Your task to perform on an android device: Add macbook pro 15 inch to the cart on target.com, then select checkout. Image 0: 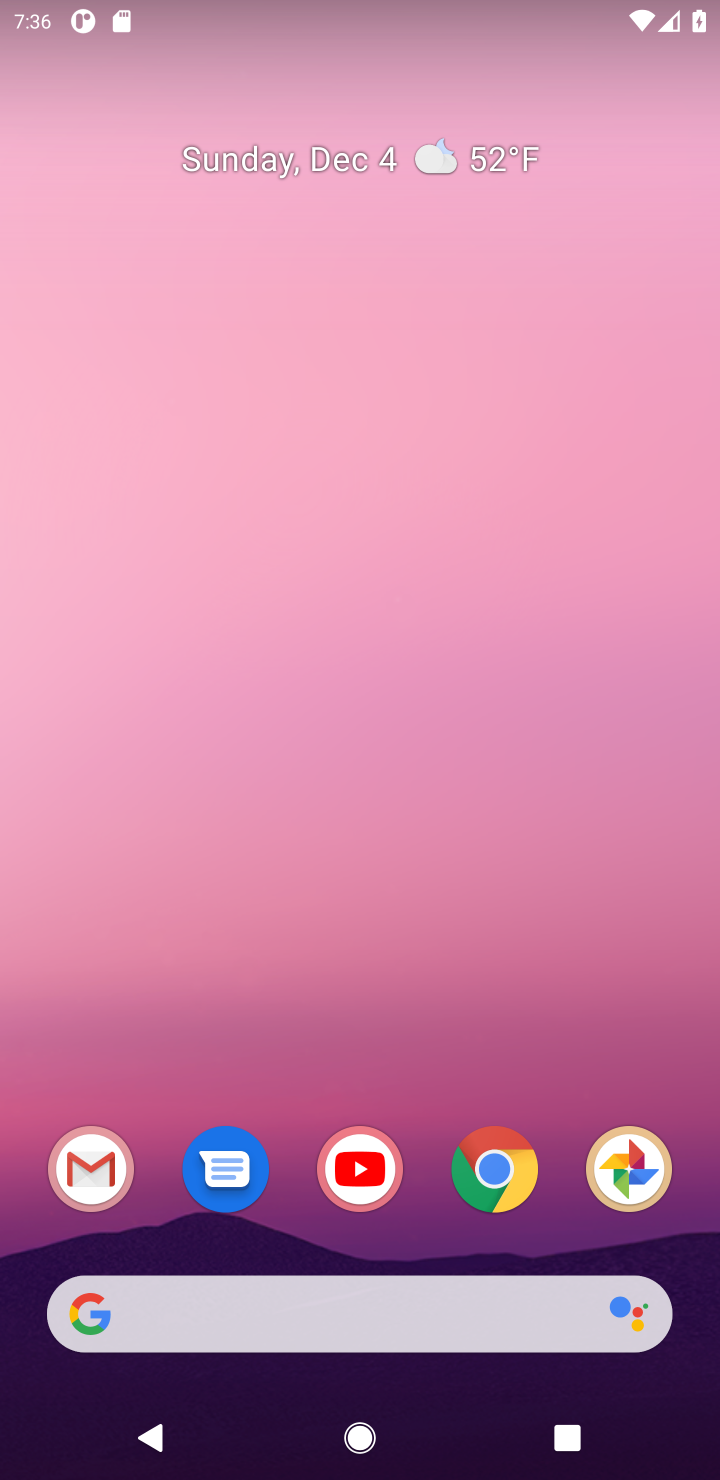
Step 0: click (506, 1171)
Your task to perform on an android device: Add macbook pro 15 inch to the cart on target.com, then select checkout. Image 1: 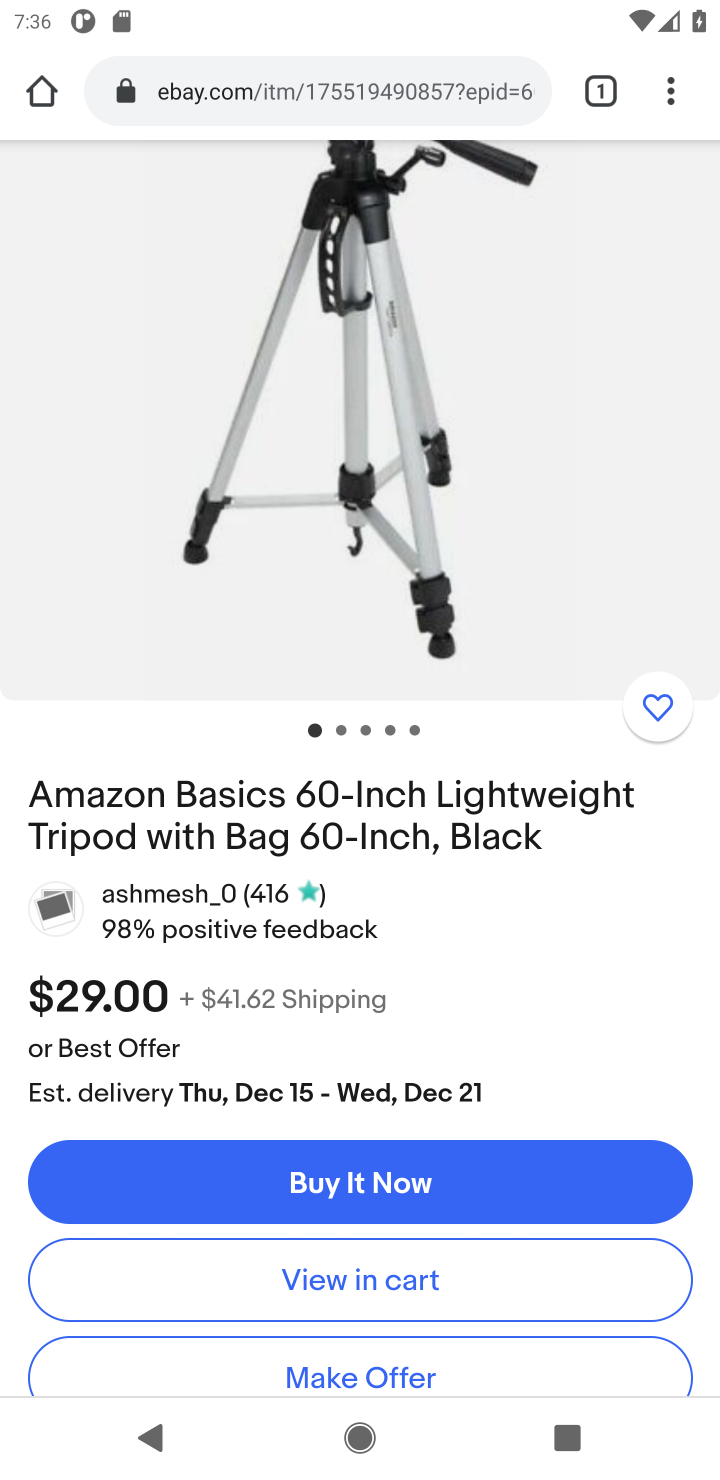
Step 1: click (298, 97)
Your task to perform on an android device: Add macbook pro 15 inch to the cart on target.com, then select checkout. Image 2: 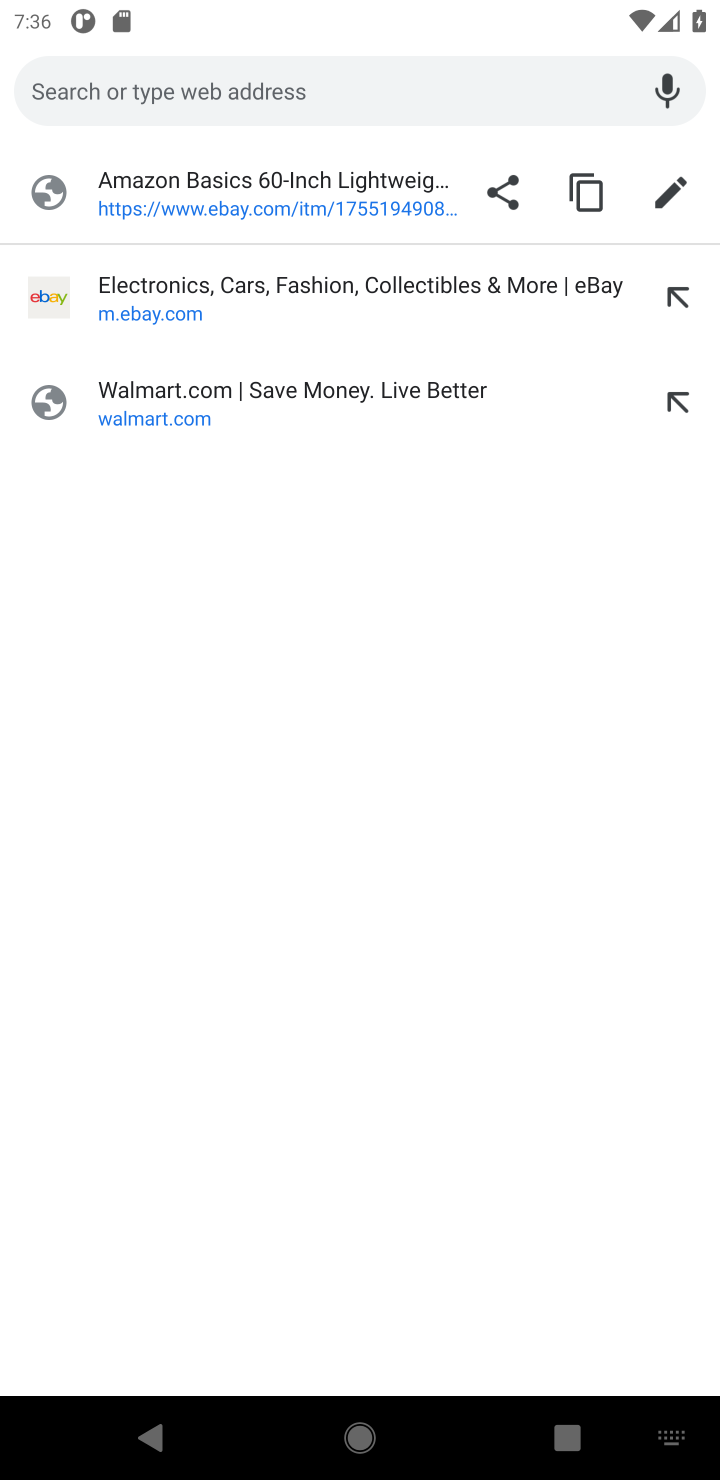
Step 2: type "target"
Your task to perform on an android device: Add macbook pro 15 inch to the cart on target.com, then select checkout. Image 3: 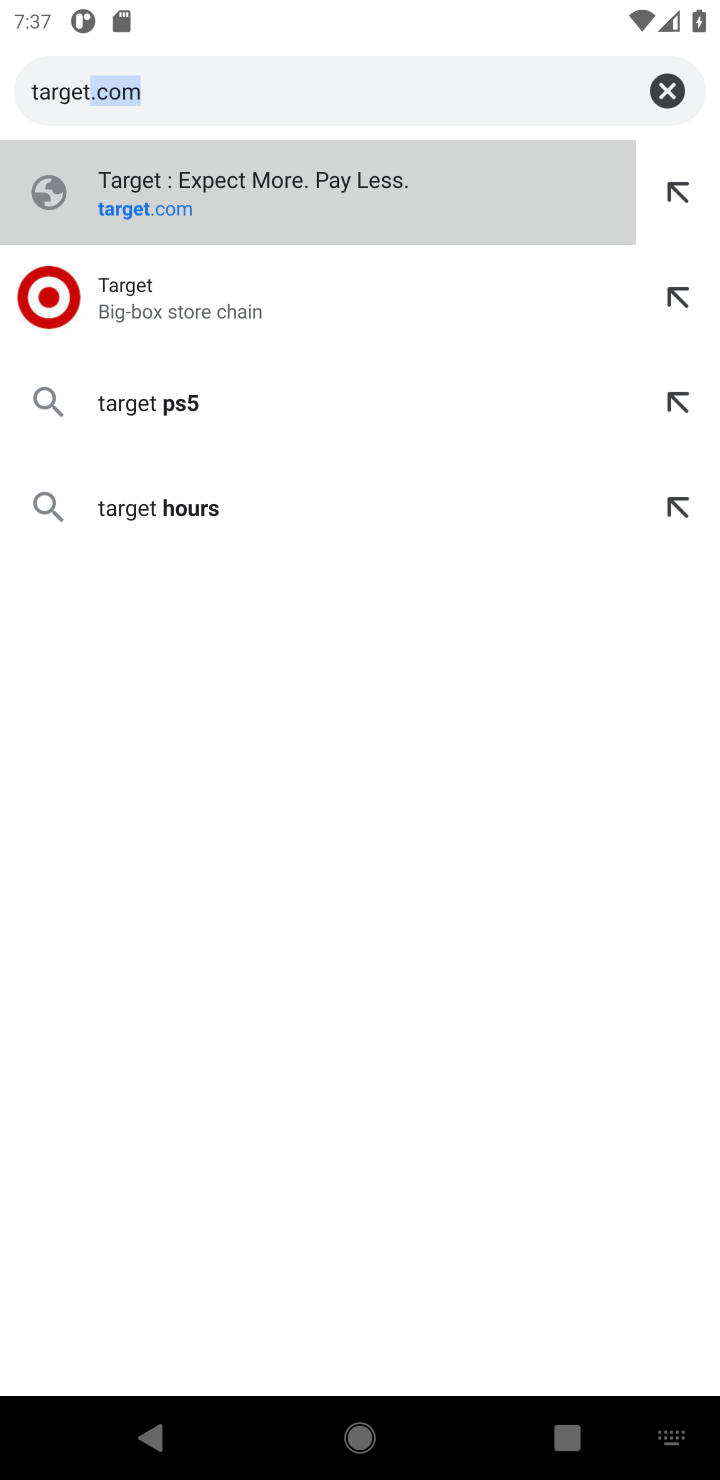
Step 3: click (175, 206)
Your task to perform on an android device: Add macbook pro 15 inch to the cart on target.com, then select checkout. Image 4: 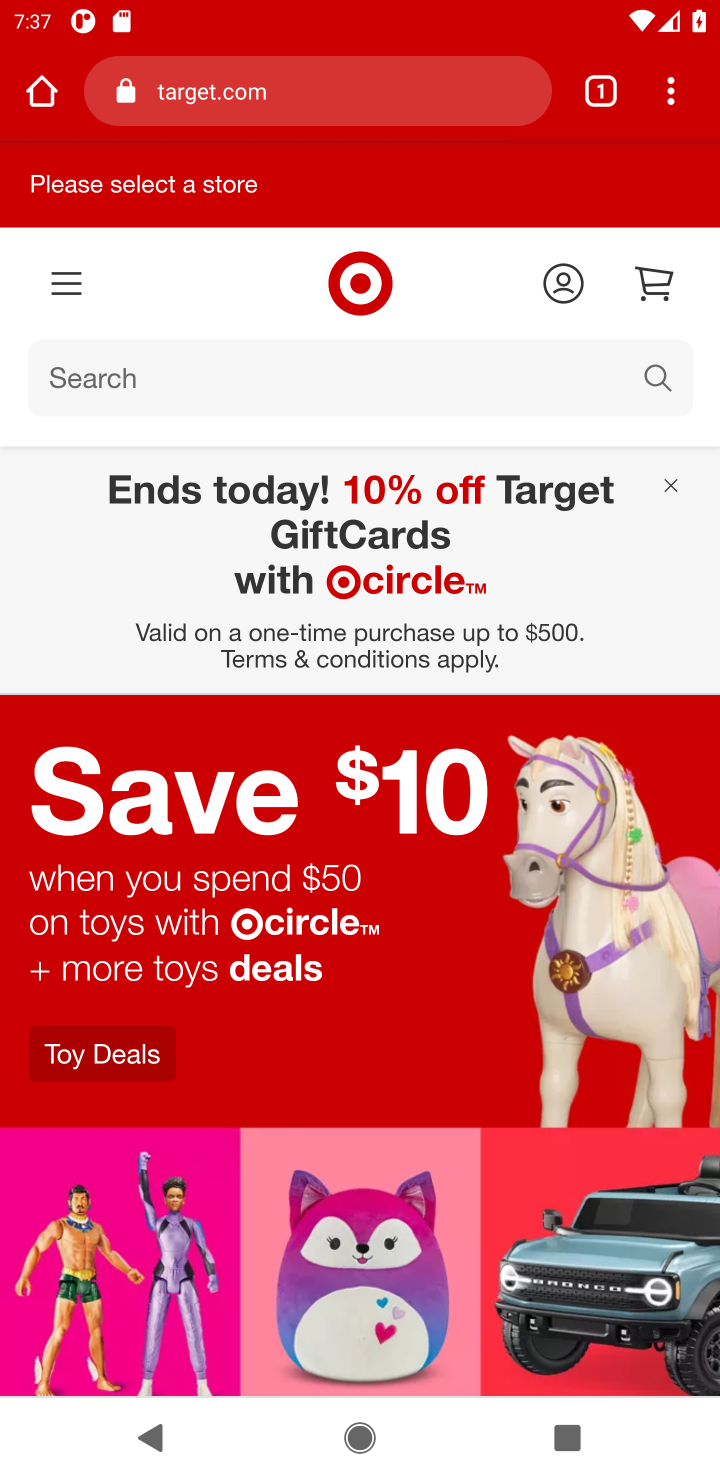
Step 4: click (518, 366)
Your task to perform on an android device: Add macbook pro 15 inch to the cart on target.com, then select checkout. Image 5: 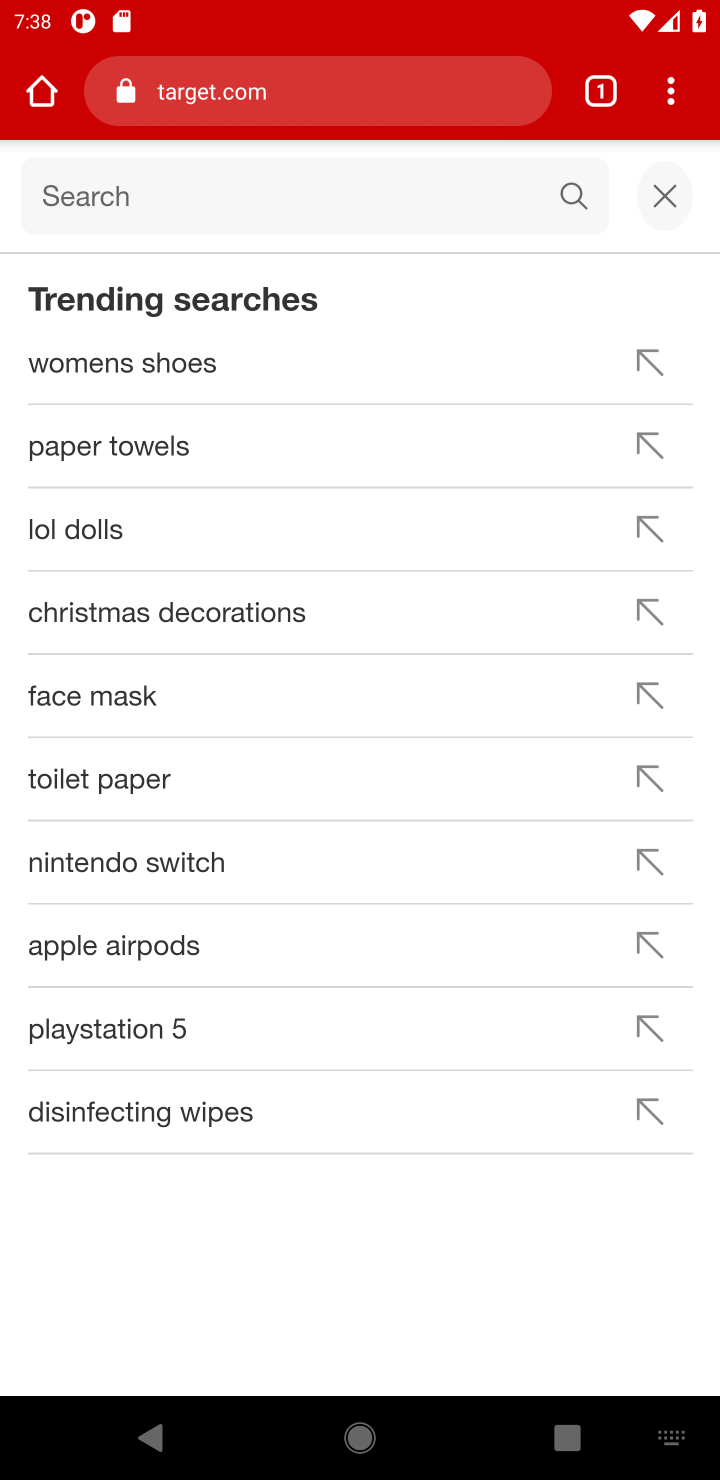
Step 5: type "macbook p[ro 15 inch"
Your task to perform on an android device: Add macbook pro 15 inch to the cart on target.com, then select checkout. Image 6: 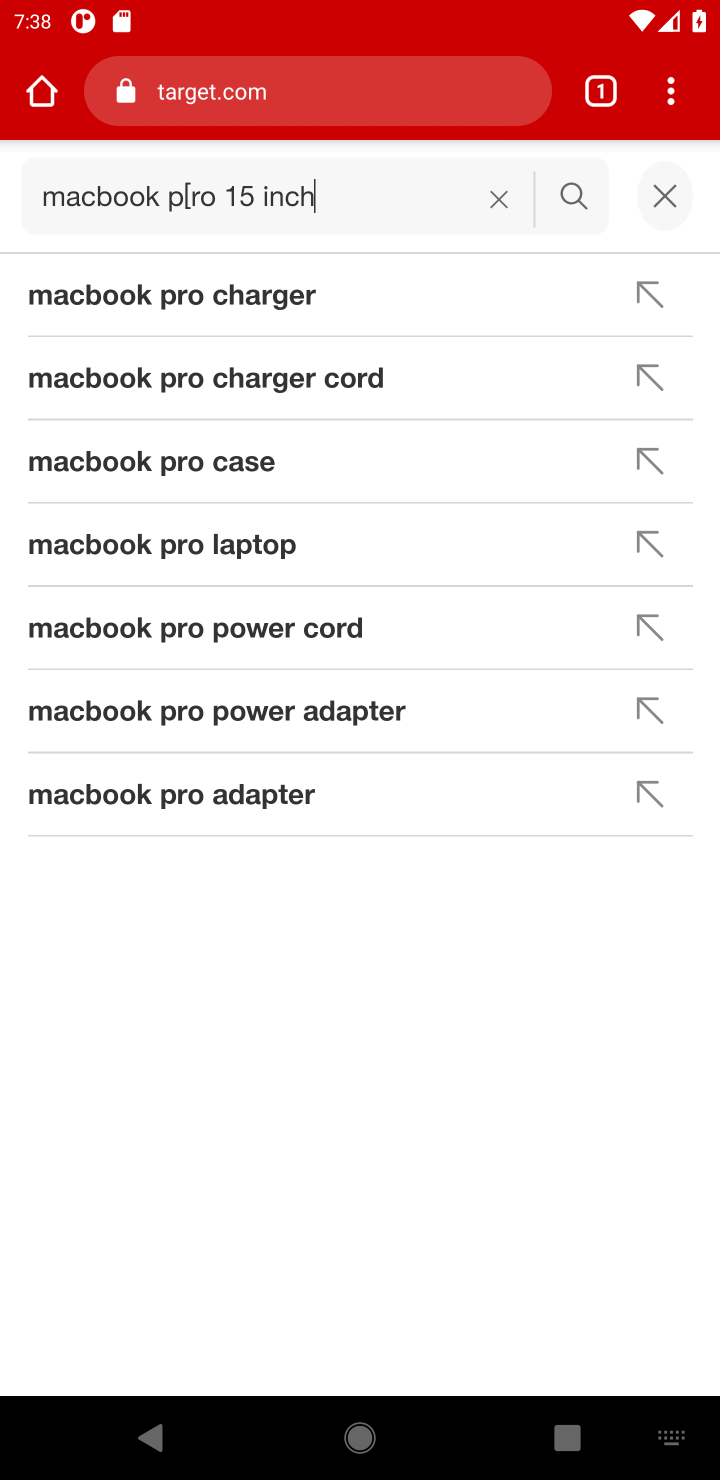
Step 6: click (265, 295)
Your task to perform on an android device: Add macbook pro 15 inch to the cart on target.com, then select checkout. Image 7: 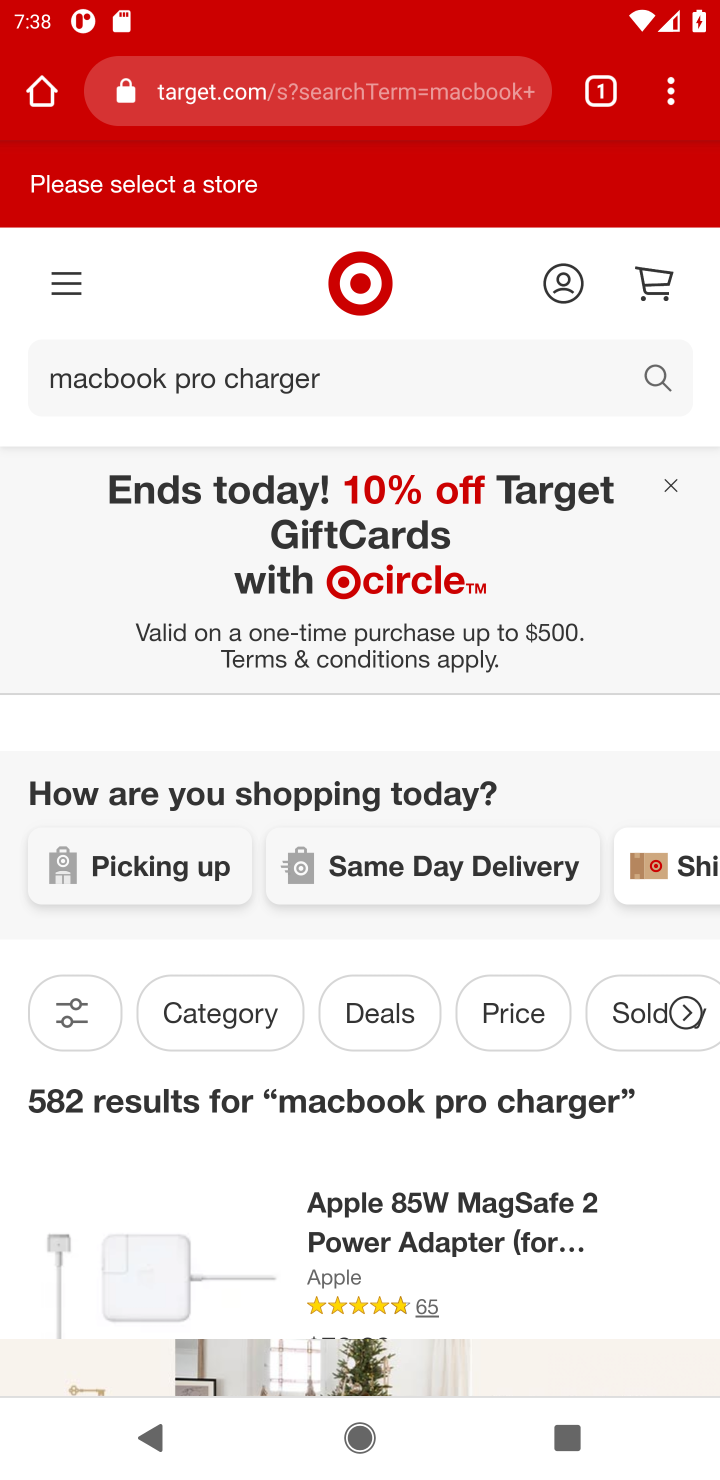
Step 7: drag from (394, 1226) to (391, 317)
Your task to perform on an android device: Add macbook pro 15 inch to the cart on target.com, then select checkout. Image 8: 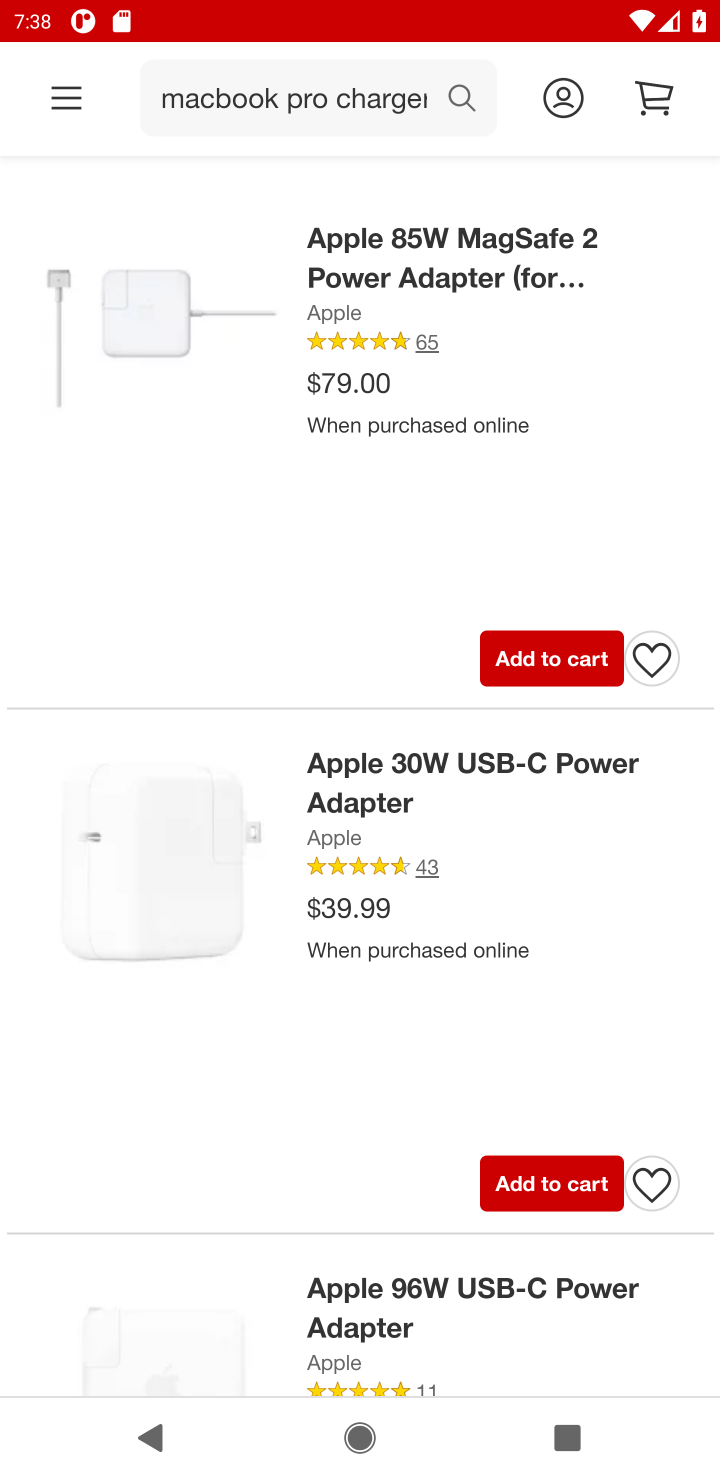
Step 8: click (544, 672)
Your task to perform on an android device: Add macbook pro 15 inch to the cart on target.com, then select checkout. Image 9: 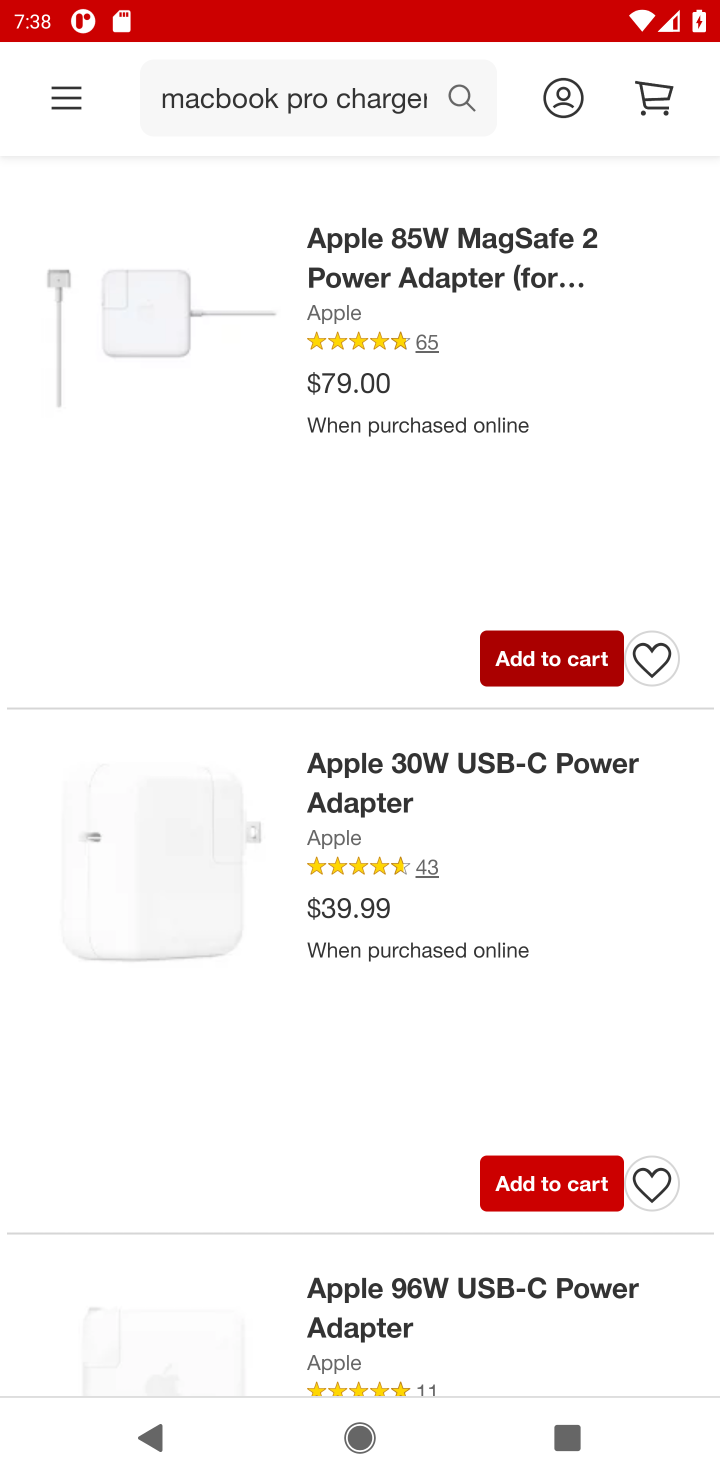
Step 9: task complete